Your task to perform on an android device: change the clock display to show seconds Image 0: 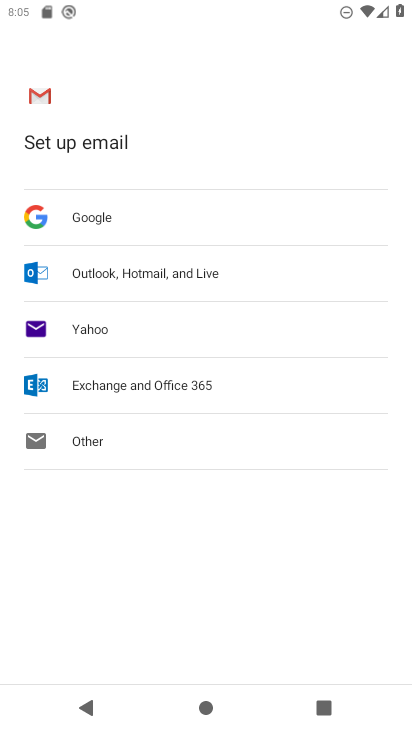
Step 0: press home button
Your task to perform on an android device: change the clock display to show seconds Image 1: 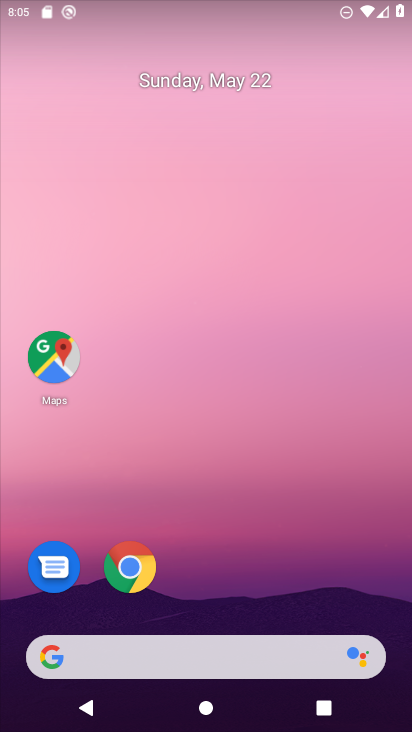
Step 1: drag from (234, 603) to (312, 39)
Your task to perform on an android device: change the clock display to show seconds Image 2: 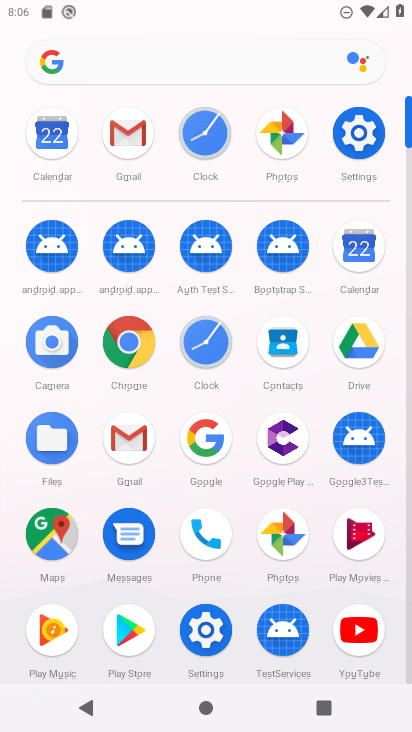
Step 2: click (211, 330)
Your task to perform on an android device: change the clock display to show seconds Image 3: 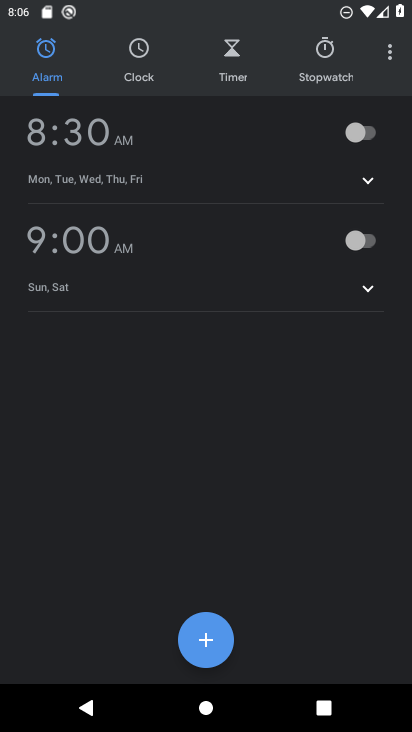
Step 3: click (387, 53)
Your task to perform on an android device: change the clock display to show seconds Image 4: 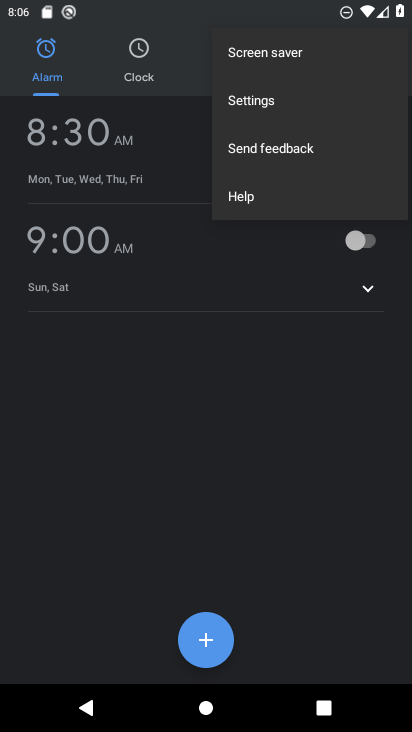
Step 4: click (314, 94)
Your task to perform on an android device: change the clock display to show seconds Image 5: 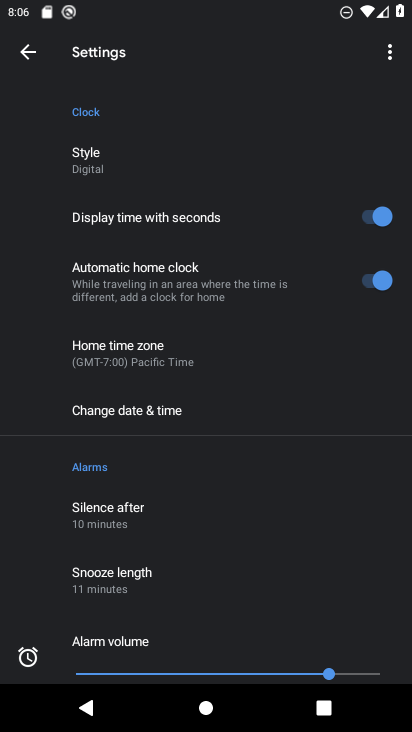
Step 5: task complete